Your task to perform on an android device: uninstall "DoorDash - Dasher" Image 0: 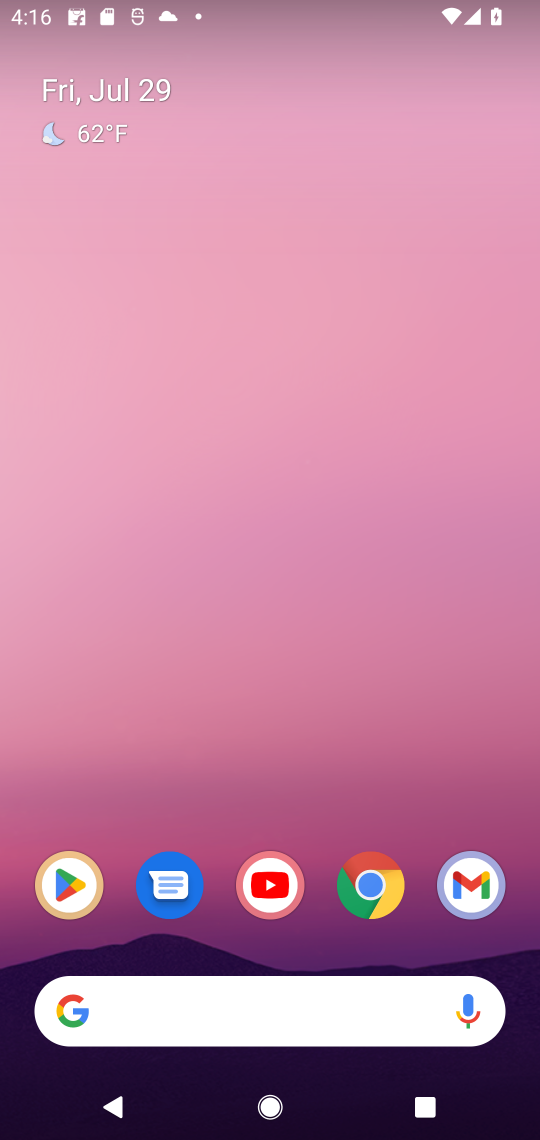
Step 0: click (60, 899)
Your task to perform on an android device: uninstall "DoorDash - Dasher" Image 1: 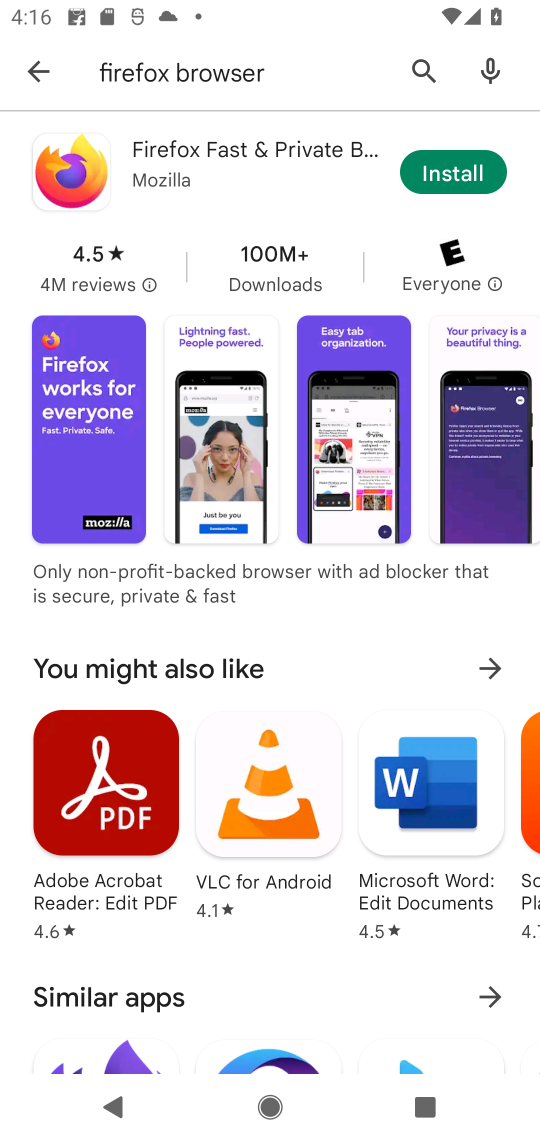
Step 1: click (414, 70)
Your task to perform on an android device: uninstall "DoorDash - Dasher" Image 2: 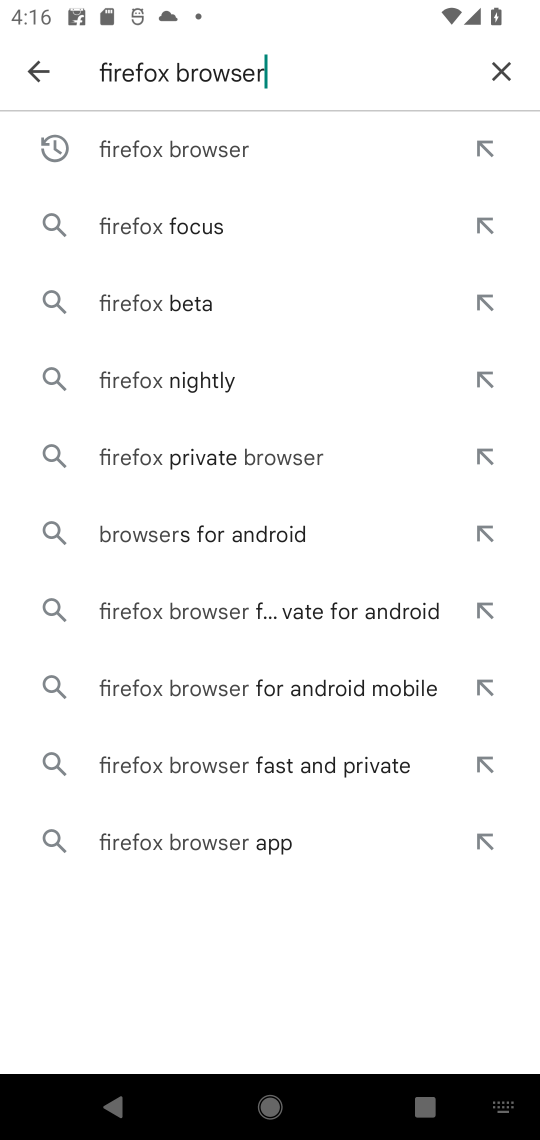
Step 2: click (500, 73)
Your task to perform on an android device: uninstall "DoorDash - Dasher" Image 3: 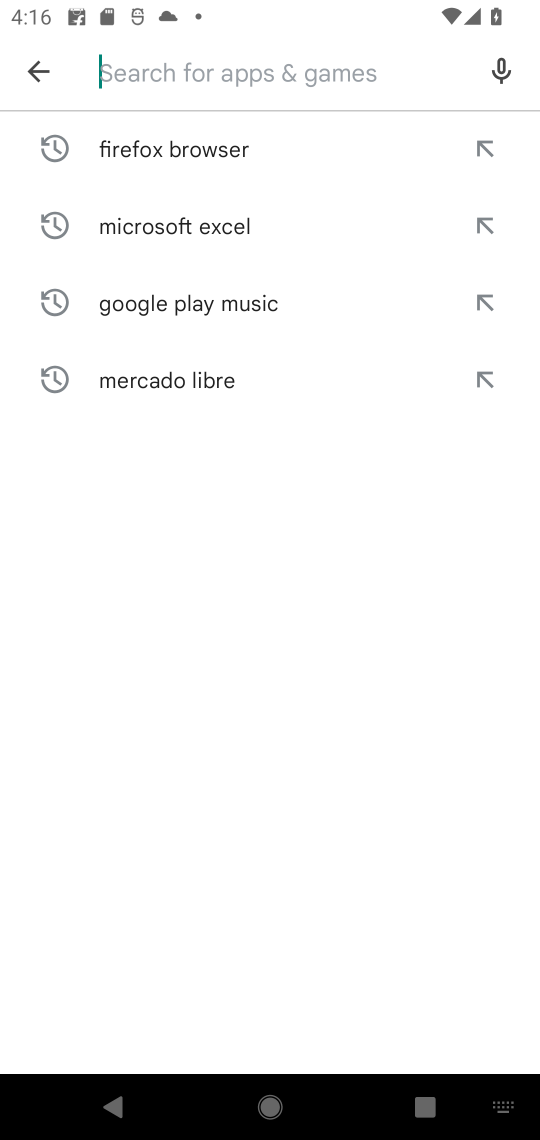
Step 3: type "DoorDash - Dasher"
Your task to perform on an android device: uninstall "DoorDash - Dasher" Image 4: 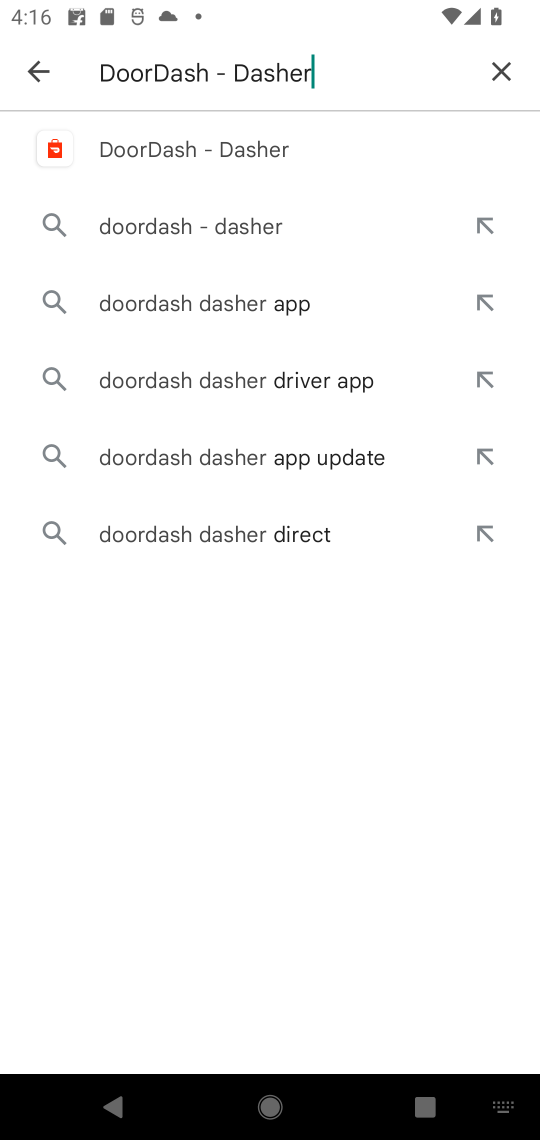
Step 4: click (258, 141)
Your task to perform on an android device: uninstall "DoorDash - Dasher" Image 5: 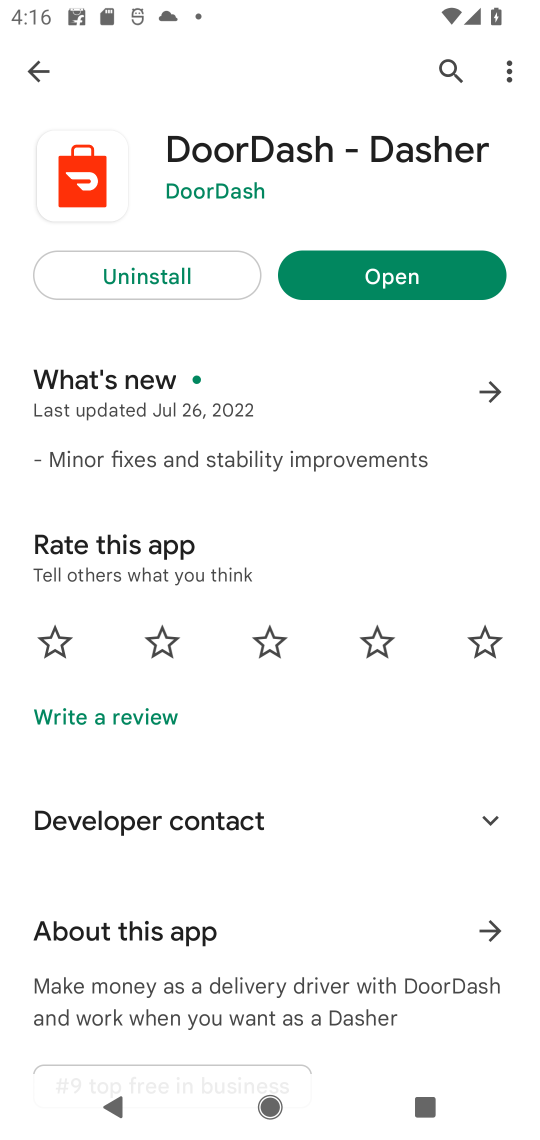
Step 5: click (178, 278)
Your task to perform on an android device: uninstall "DoorDash - Dasher" Image 6: 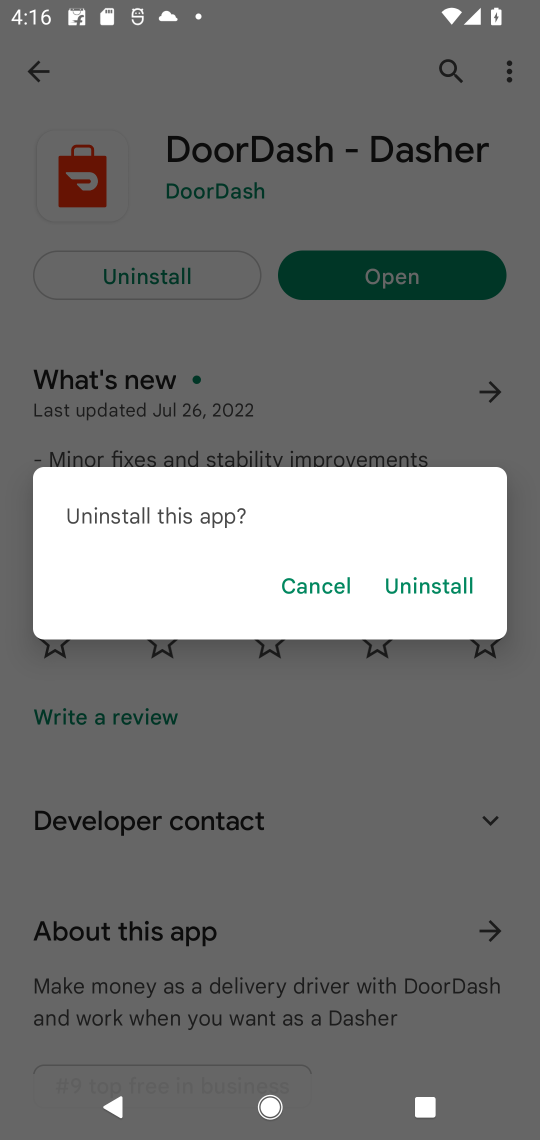
Step 6: click (456, 590)
Your task to perform on an android device: uninstall "DoorDash - Dasher" Image 7: 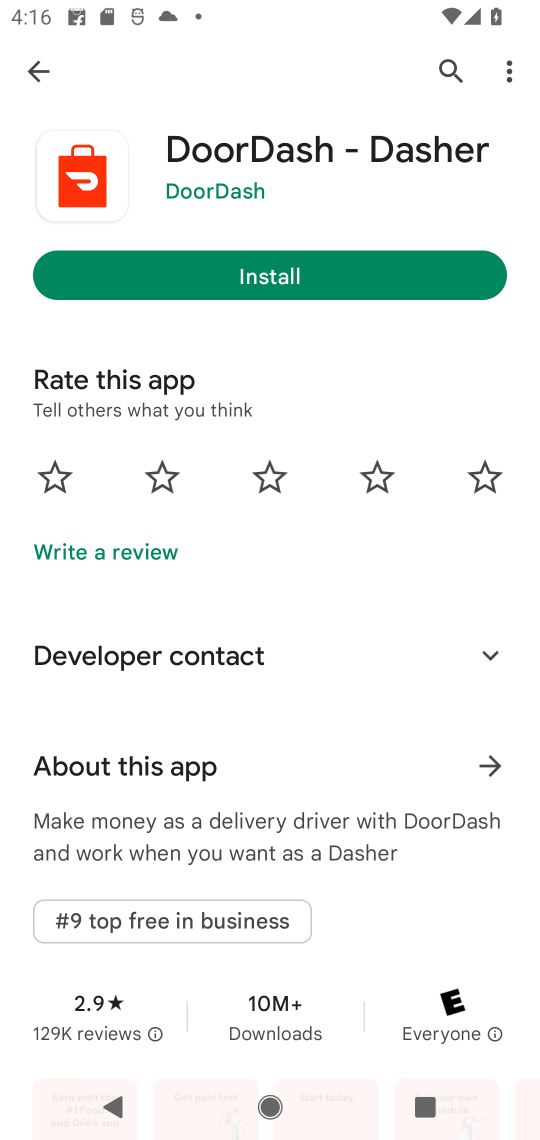
Step 7: task complete